Your task to perform on an android device: clear all cookies in the chrome app Image 0: 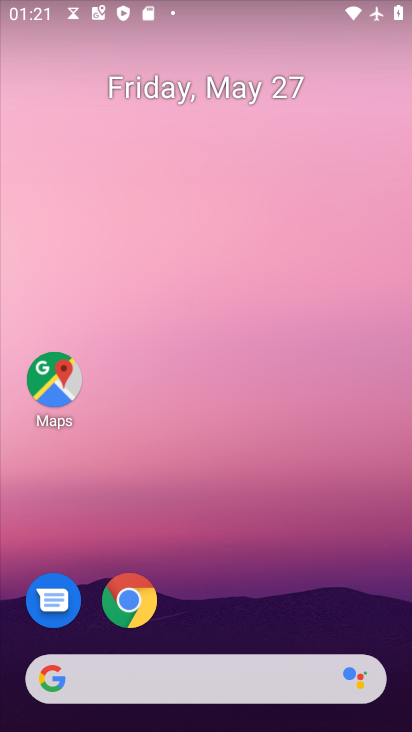
Step 0: click (123, 595)
Your task to perform on an android device: clear all cookies in the chrome app Image 1: 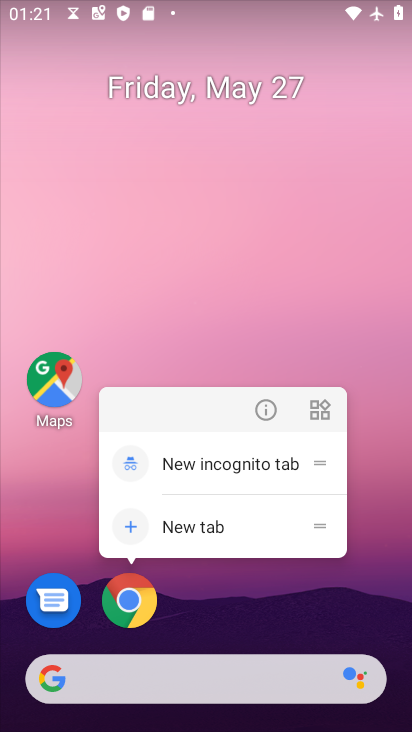
Step 1: click (124, 596)
Your task to perform on an android device: clear all cookies in the chrome app Image 2: 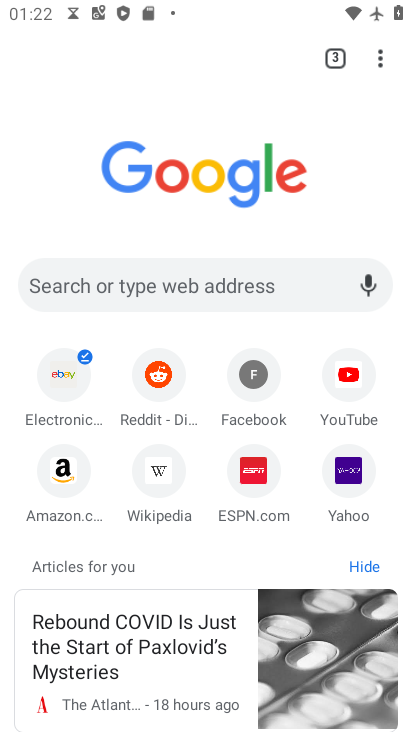
Step 2: click (385, 62)
Your task to perform on an android device: clear all cookies in the chrome app Image 3: 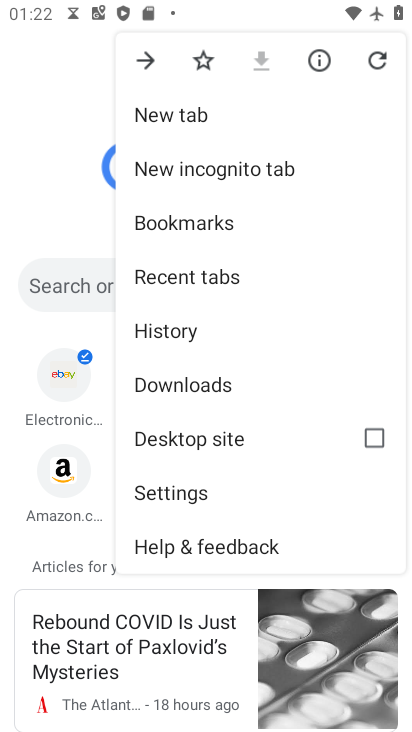
Step 3: click (192, 482)
Your task to perform on an android device: clear all cookies in the chrome app Image 4: 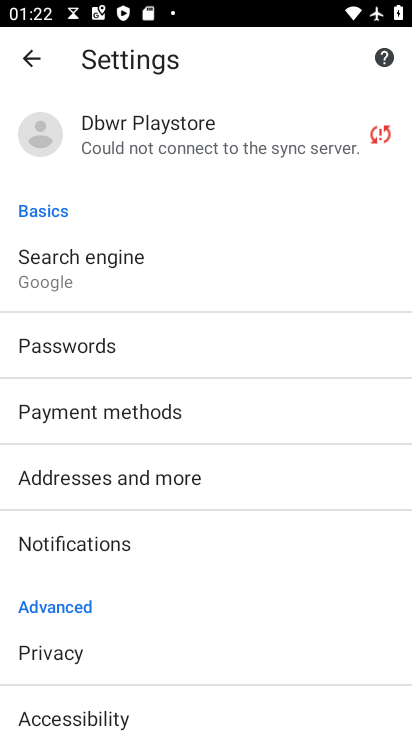
Step 4: drag from (161, 600) to (158, 187)
Your task to perform on an android device: clear all cookies in the chrome app Image 5: 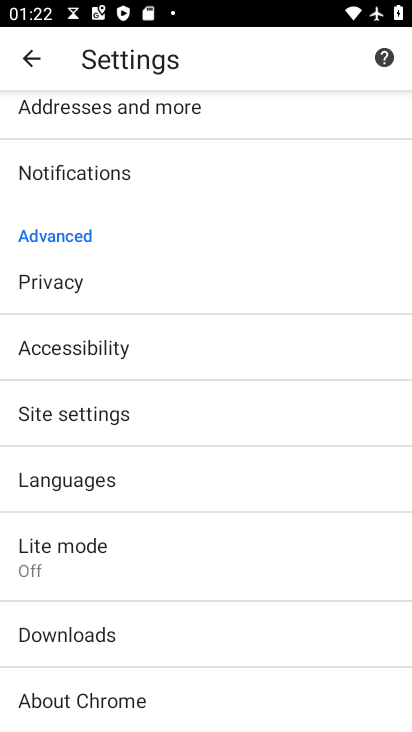
Step 5: click (124, 416)
Your task to perform on an android device: clear all cookies in the chrome app Image 6: 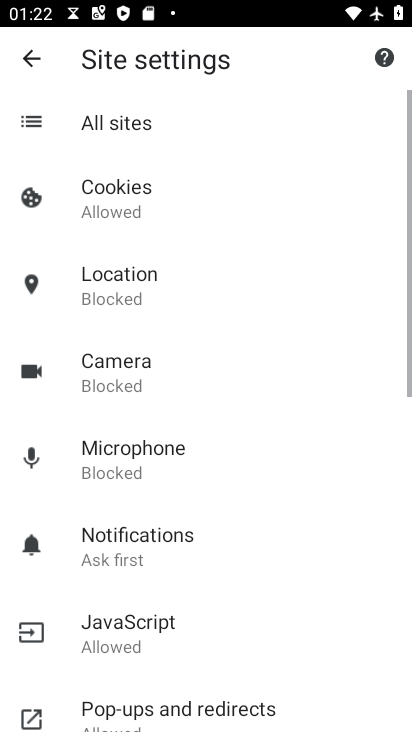
Step 6: click (161, 211)
Your task to perform on an android device: clear all cookies in the chrome app Image 7: 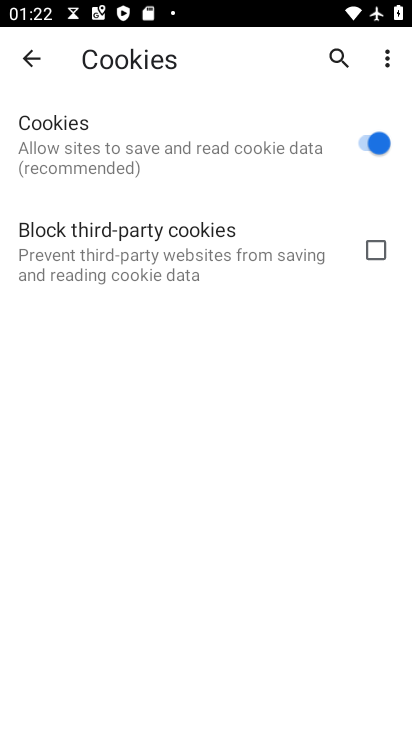
Step 7: click (158, 157)
Your task to perform on an android device: clear all cookies in the chrome app Image 8: 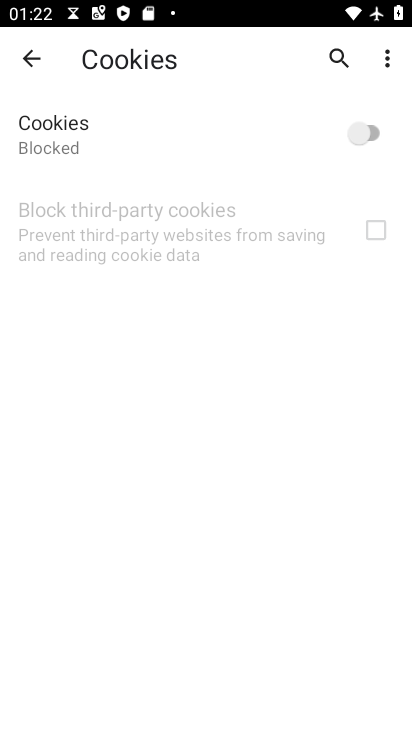
Step 8: click (158, 157)
Your task to perform on an android device: clear all cookies in the chrome app Image 9: 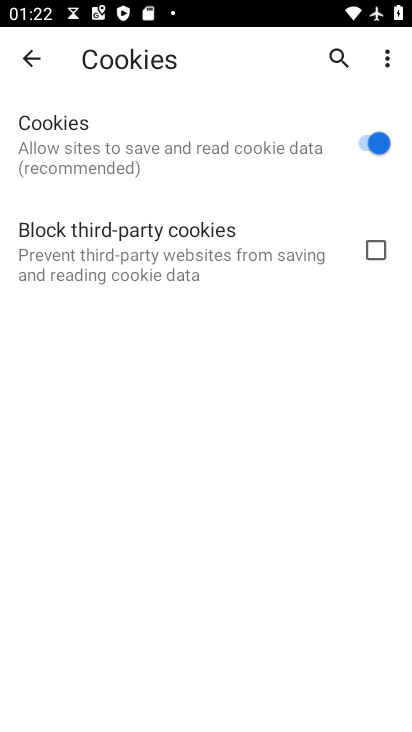
Step 9: click (373, 48)
Your task to perform on an android device: clear all cookies in the chrome app Image 10: 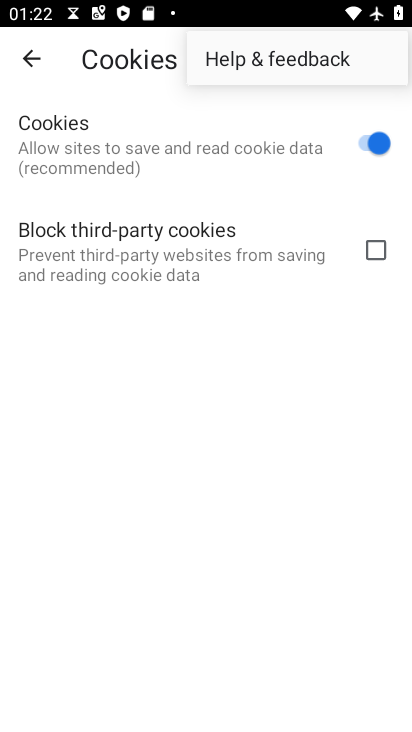
Step 10: task complete